Your task to perform on an android device: open app "Microsoft Outlook" Image 0: 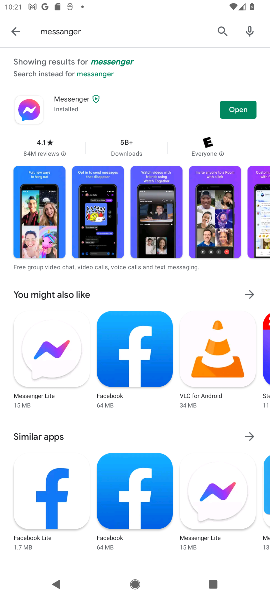
Step 0: click (230, 112)
Your task to perform on an android device: open app "Microsoft Outlook" Image 1: 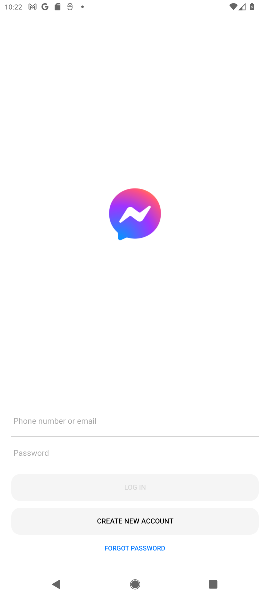
Step 1: press home button
Your task to perform on an android device: open app "Microsoft Outlook" Image 2: 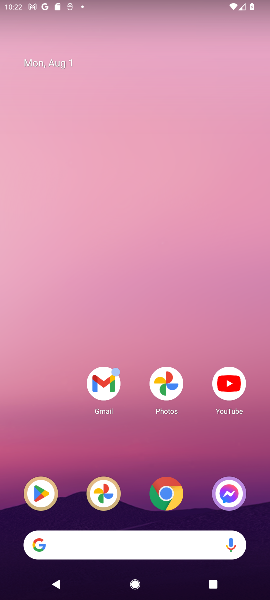
Step 2: click (27, 486)
Your task to perform on an android device: open app "Microsoft Outlook" Image 3: 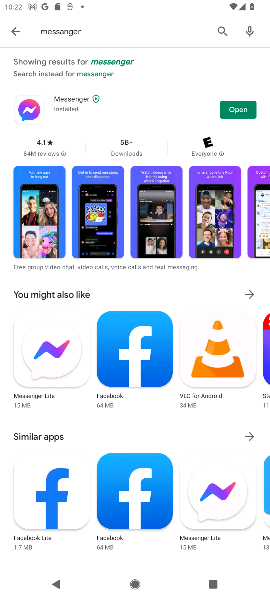
Step 3: click (229, 33)
Your task to perform on an android device: open app "Microsoft Outlook" Image 4: 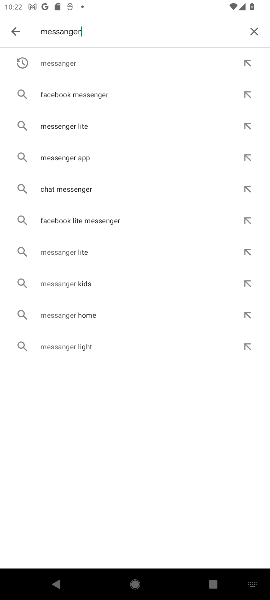
Step 4: click (252, 33)
Your task to perform on an android device: open app "Microsoft Outlook" Image 5: 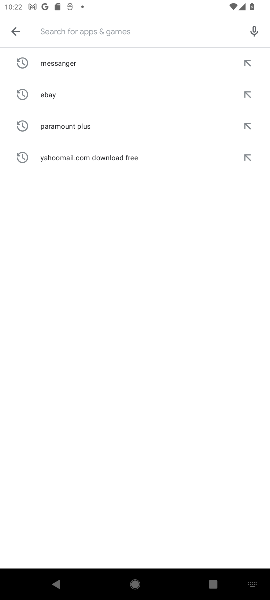
Step 5: type "microsoft"
Your task to perform on an android device: open app "Microsoft Outlook" Image 6: 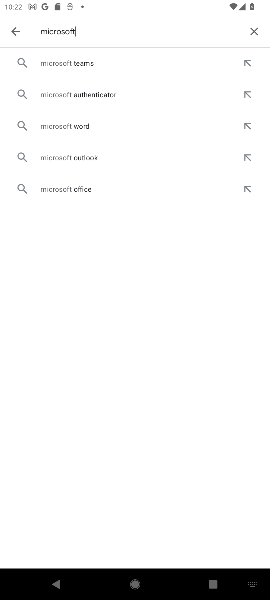
Step 6: click (96, 70)
Your task to perform on an android device: open app "Microsoft Outlook" Image 7: 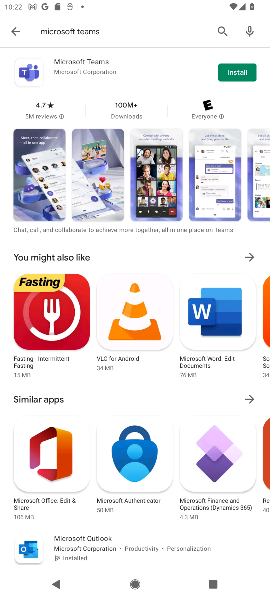
Step 7: click (245, 73)
Your task to perform on an android device: open app "Microsoft Outlook" Image 8: 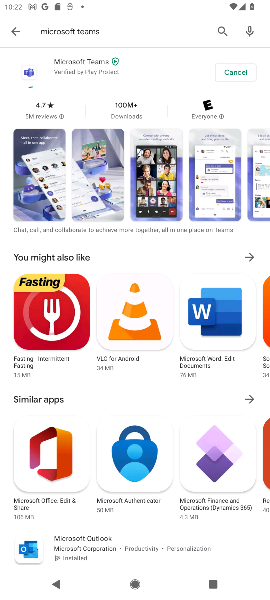
Step 8: task complete